Your task to perform on an android device: turn on wifi Image 0: 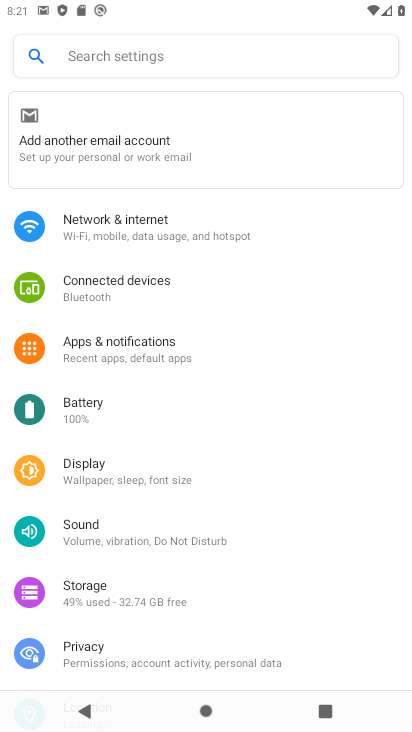
Step 0: press home button
Your task to perform on an android device: turn on wifi Image 1: 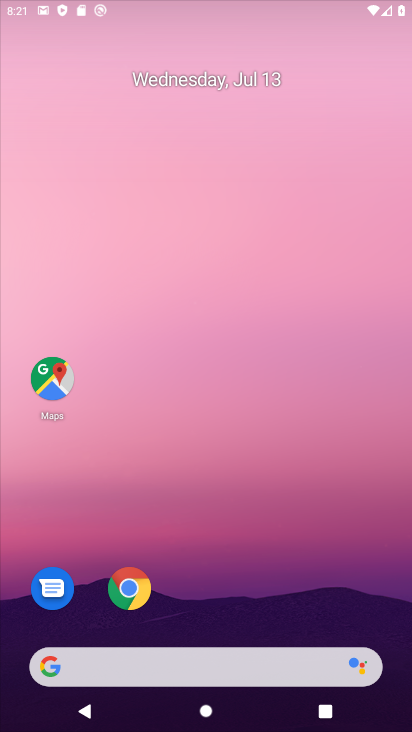
Step 1: drag from (264, 622) to (218, 85)
Your task to perform on an android device: turn on wifi Image 2: 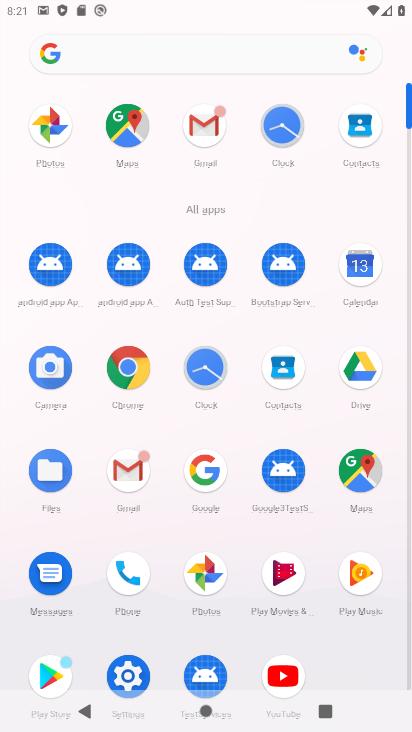
Step 2: click (124, 675)
Your task to perform on an android device: turn on wifi Image 3: 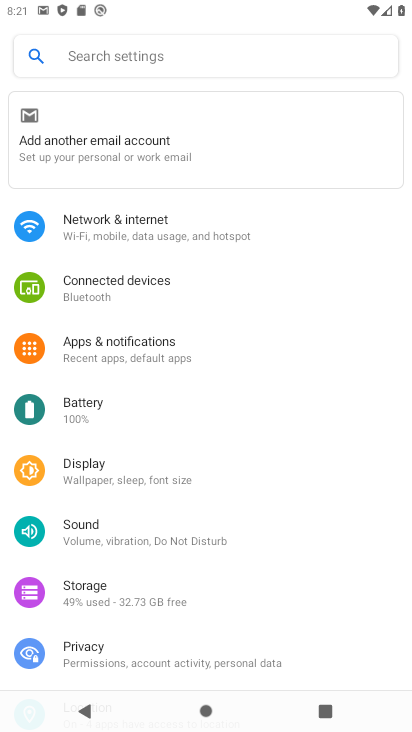
Step 3: click (131, 227)
Your task to perform on an android device: turn on wifi Image 4: 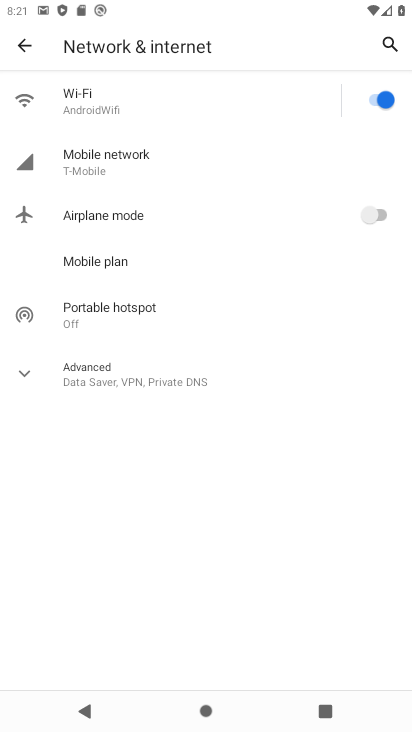
Step 4: task complete